Your task to perform on an android device: Clear all items from cart on amazon. Add logitech g910 to the cart on amazon, then select checkout. Image 0: 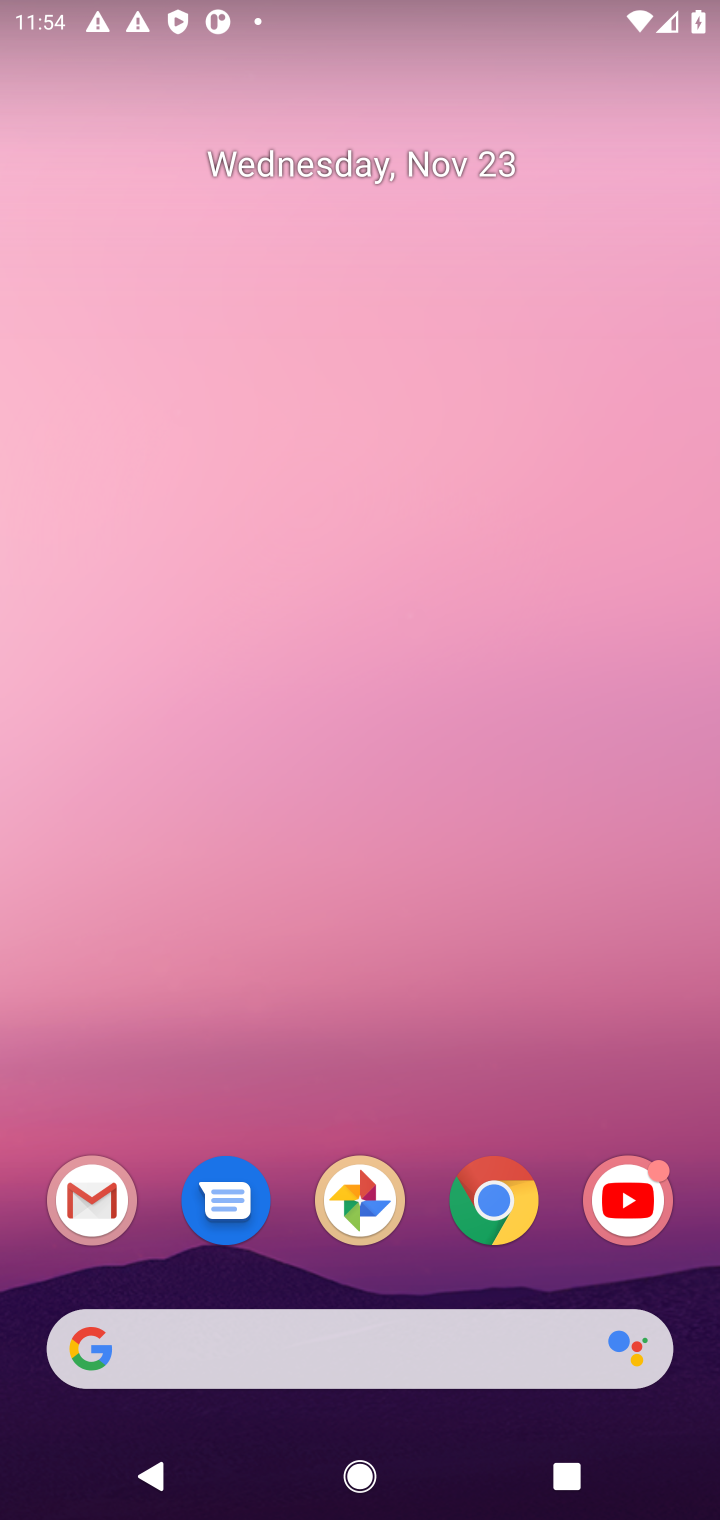
Step 0: click (270, 1362)
Your task to perform on an android device: Clear all items from cart on amazon. Add logitech g910 to the cart on amazon, then select checkout. Image 1: 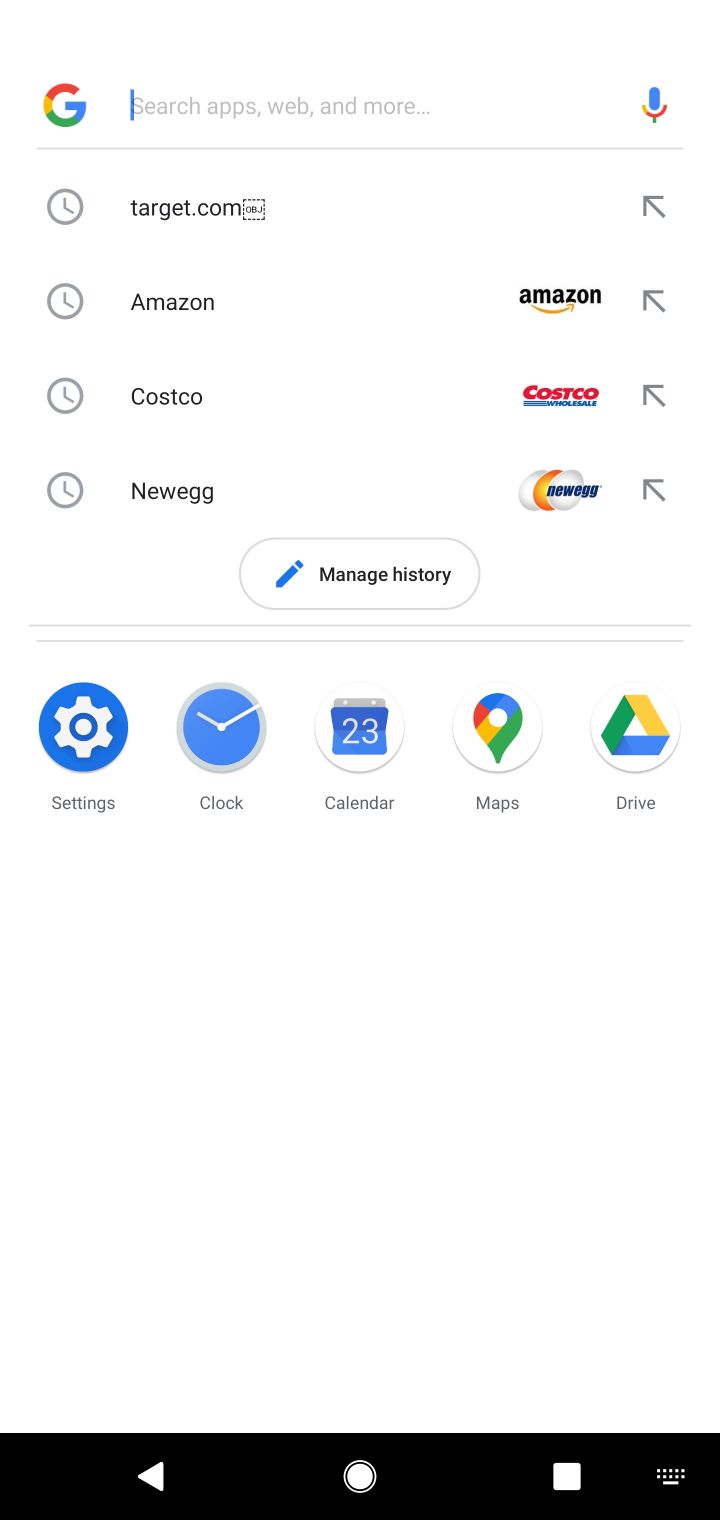
Step 1: click (541, 315)
Your task to perform on an android device: Clear all items from cart on amazon. Add logitech g910 to the cart on amazon, then select checkout. Image 2: 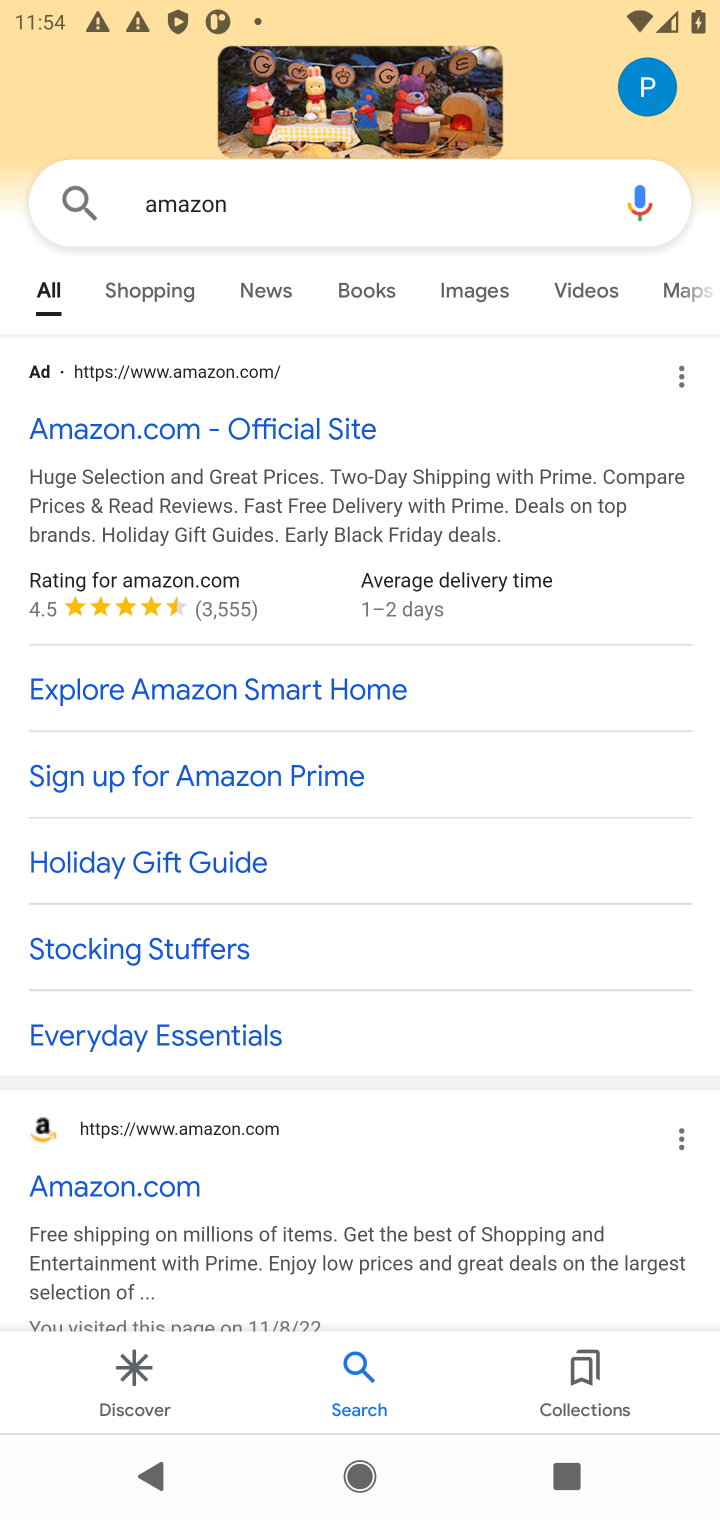
Step 2: click (318, 424)
Your task to perform on an android device: Clear all items from cart on amazon. Add logitech g910 to the cart on amazon, then select checkout. Image 3: 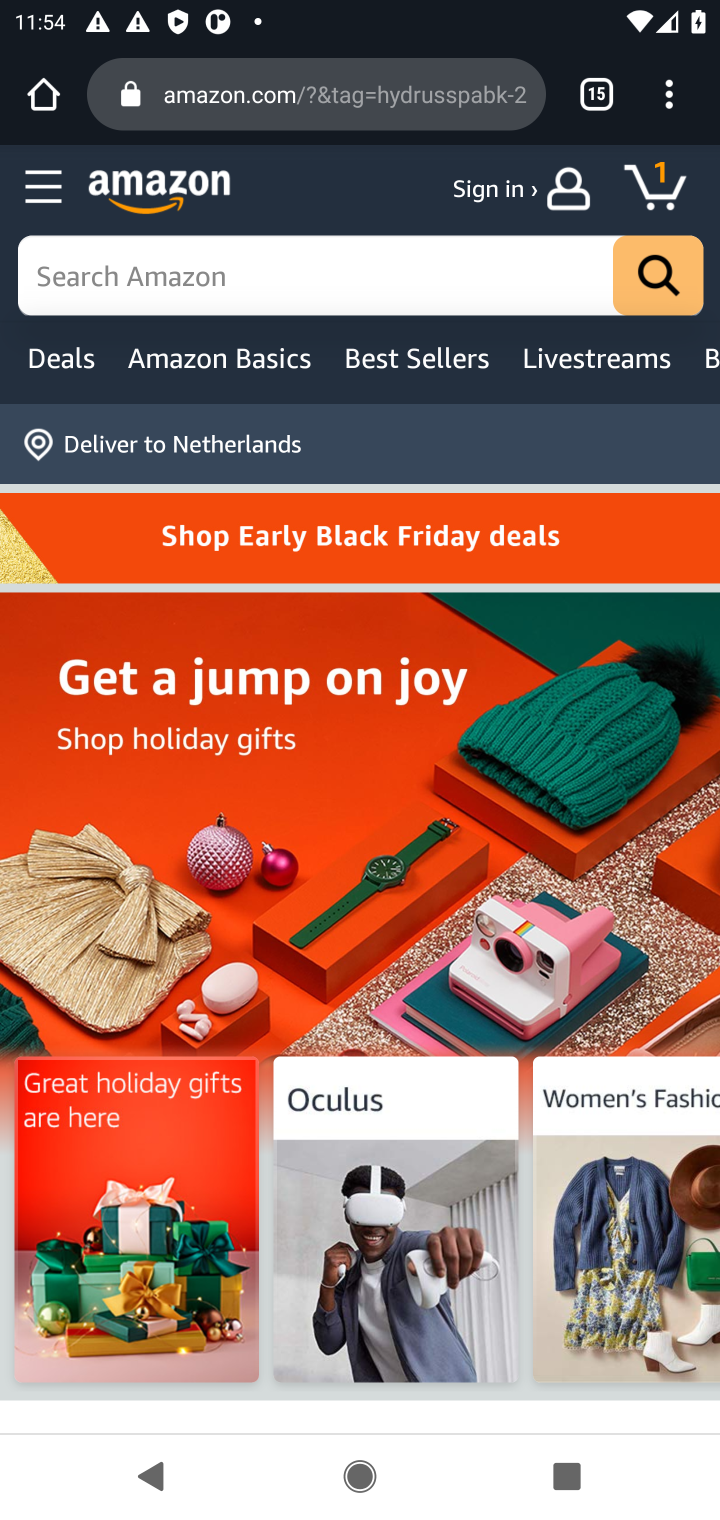
Step 3: click (179, 275)
Your task to perform on an android device: Clear all items from cart on amazon. Add logitech g910 to the cart on amazon, then select checkout. Image 4: 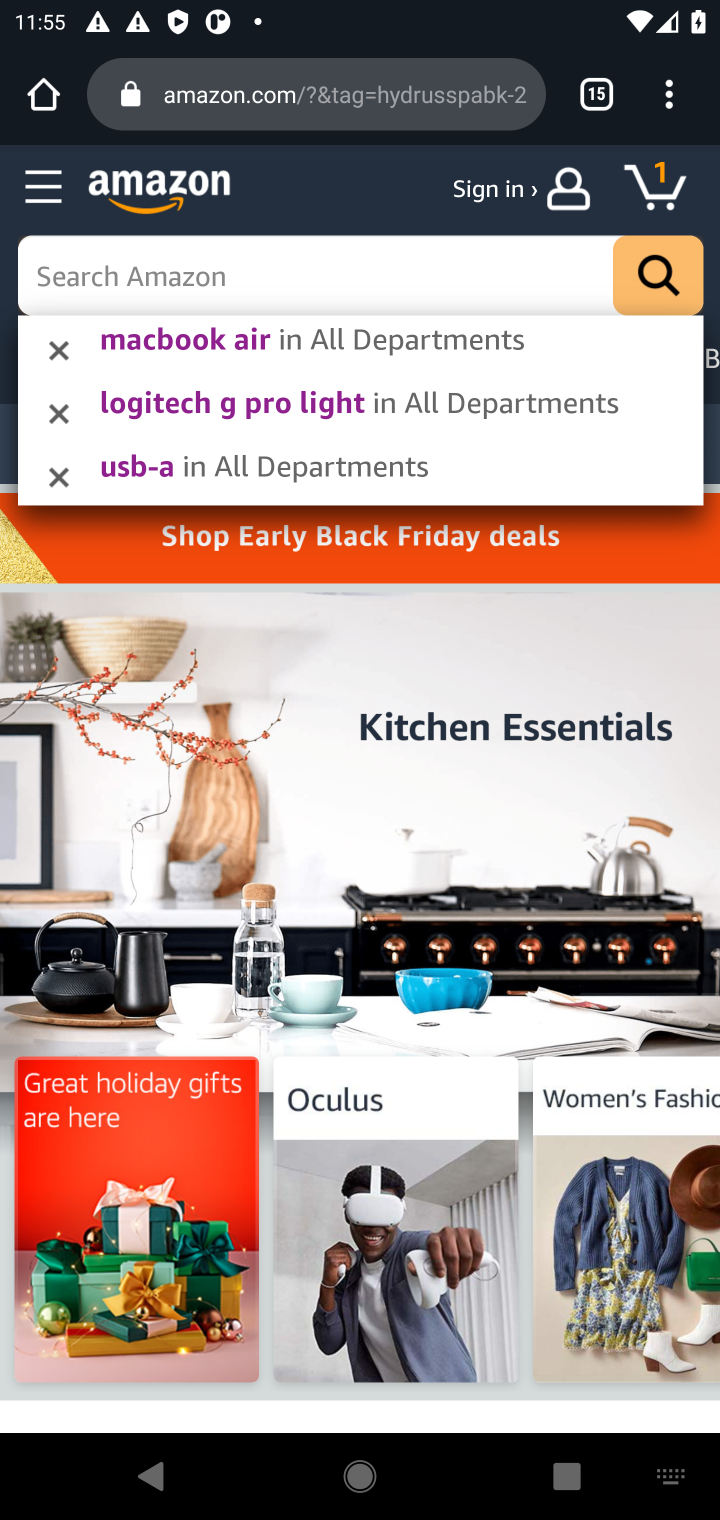
Step 4: type "logitech g910"
Your task to perform on an android device: Clear all items from cart on amazon. Add logitech g910 to the cart on amazon, then select checkout. Image 5: 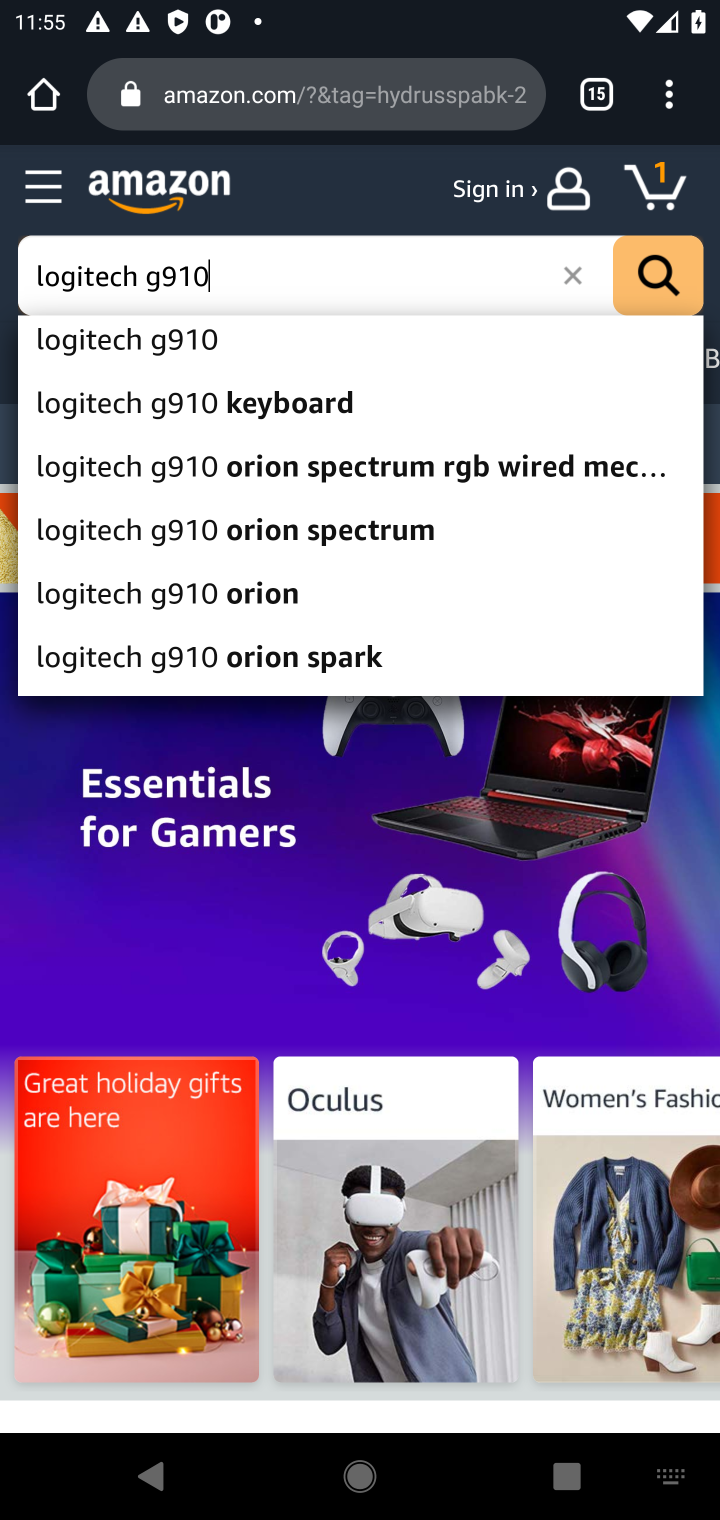
Step 5: click (384, 338)
Your task to perform on an android device: Clear all items from cart on amazon. Add logitech g910 to the cart on amazon, then select checkout. Image 6: 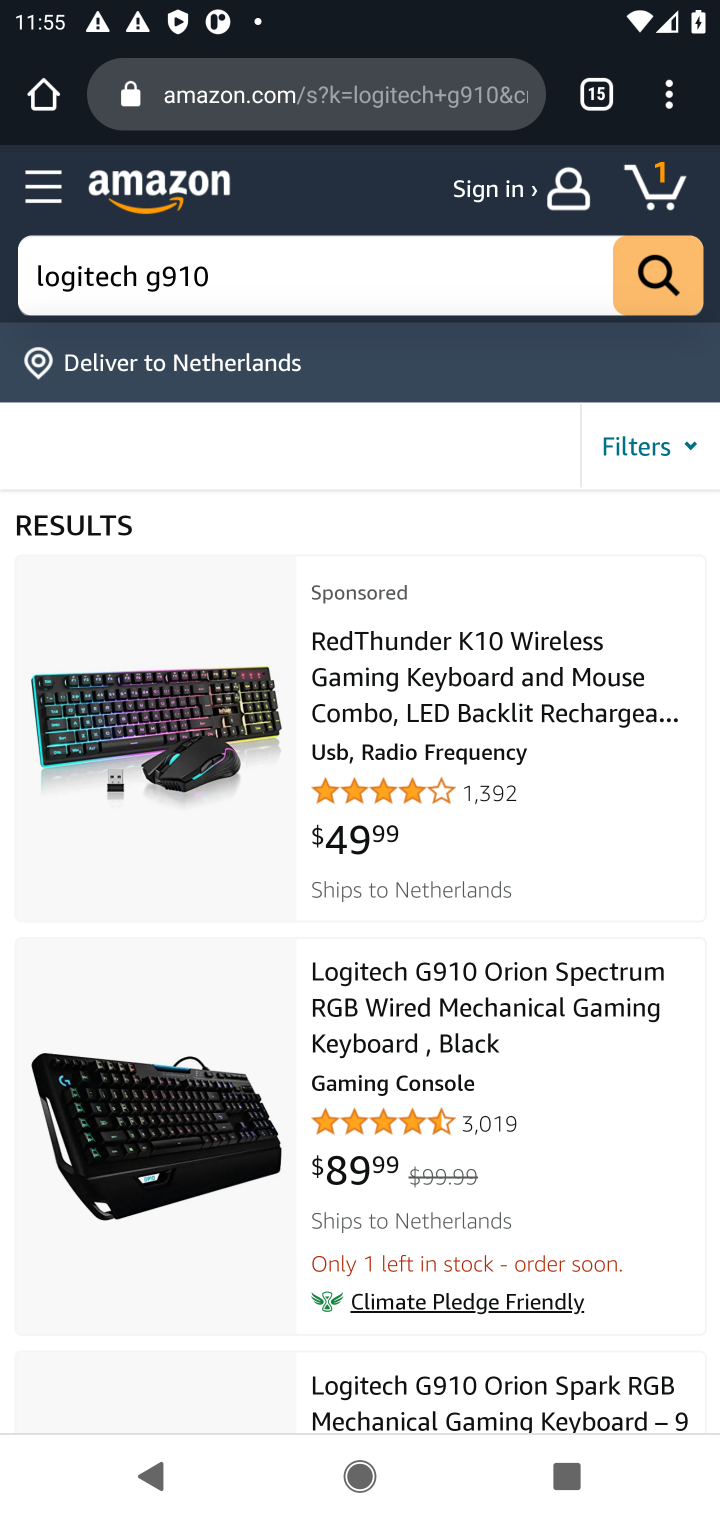
Step 6: click (465, 681)
Your task to perform on an android device: Clear all items from cart on amazon. Add logitech g910 to the cart on amazon, then select checkout. Image 7: 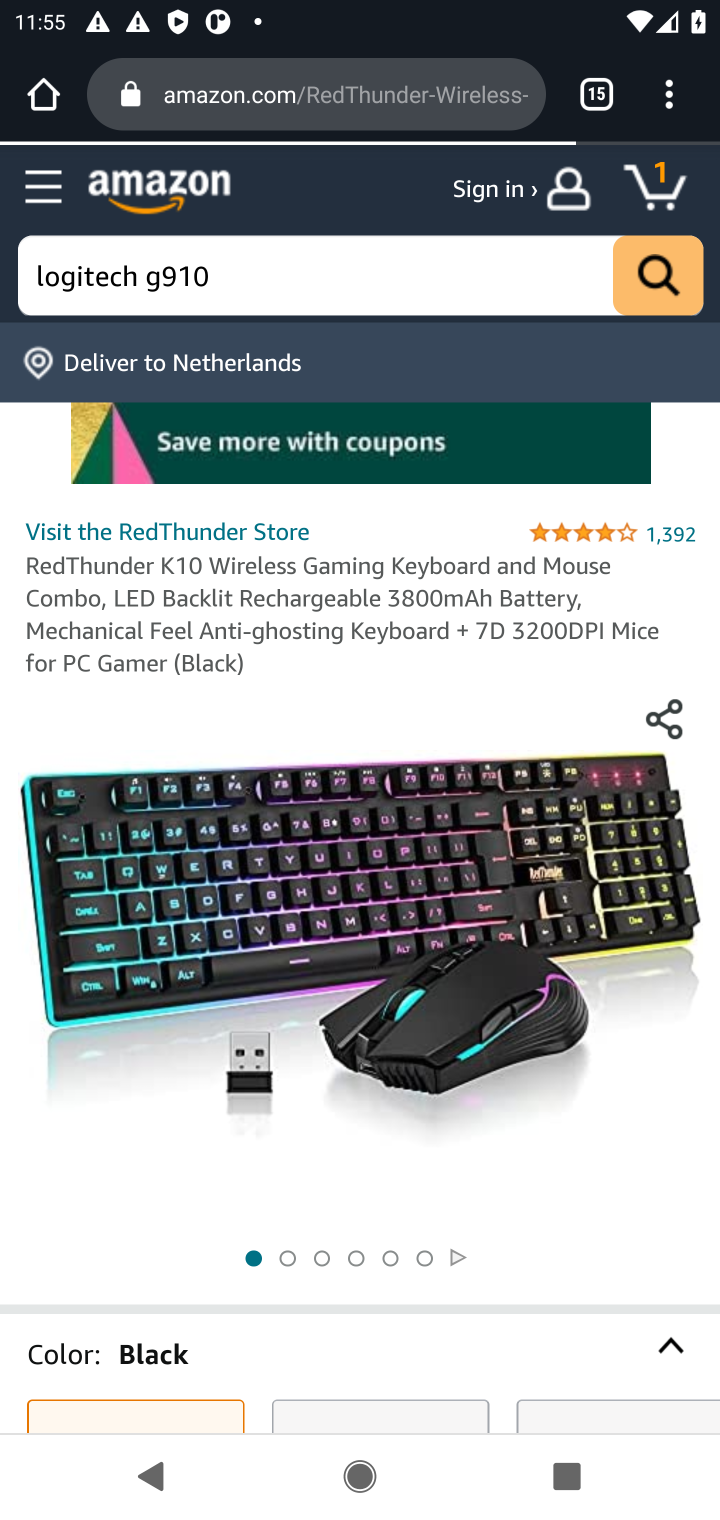
Step 7: drag from (452, 1137) to (313, 307)
Your task to perform on an android device: Clear all items from cart on amazon. Add logitech g910 to the cart on amazon, then select checkout. Image 8: 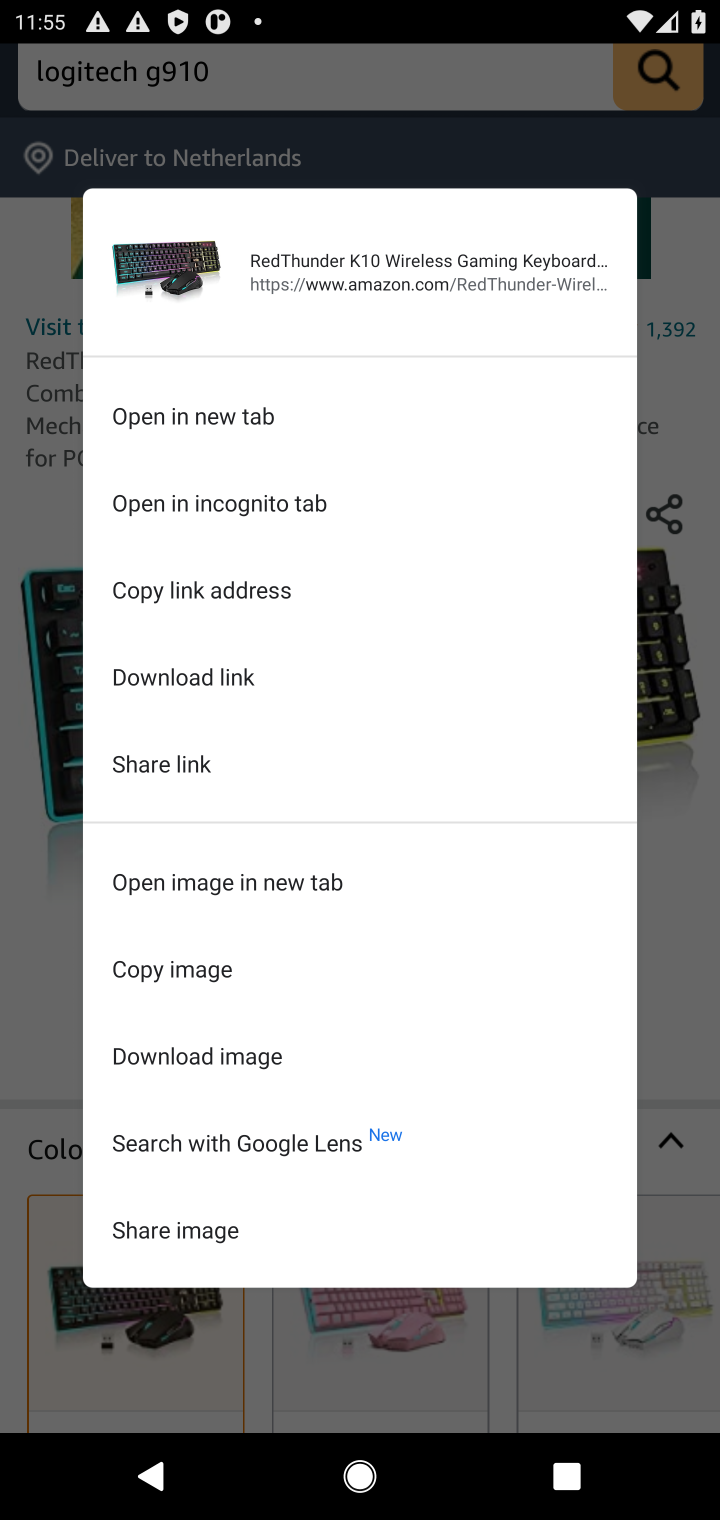
Step 8: click (39, 878)
Your task to perform on an android device: Clear all items from cart on amazon. Add logitech g910 to the cart on amazon, then select checkout. Image 9: 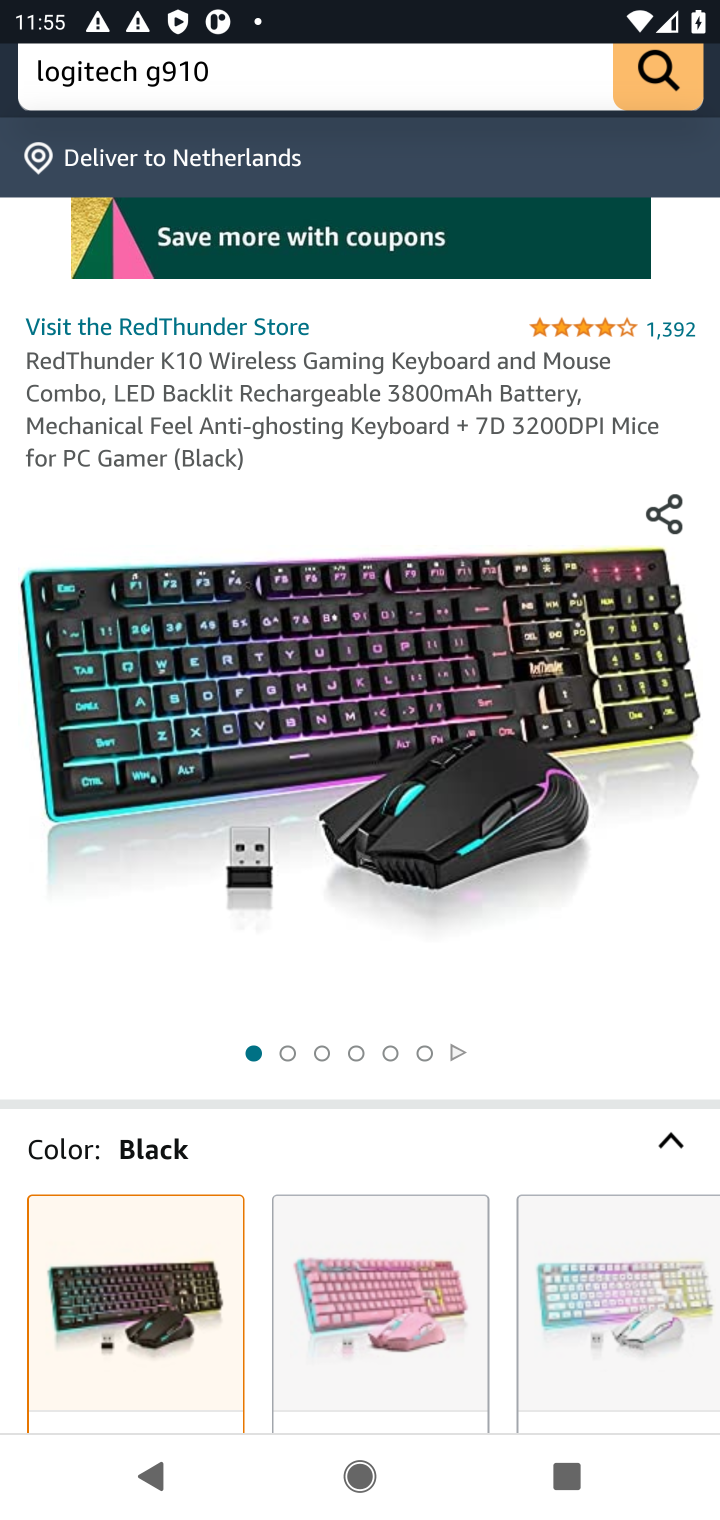
Step 9: drag from (305, 1163) to (357, 11)
Your task to perform on an android device: Clear all items from cart on amazon. Add logitech g910 to the cart on amazon, then select checkout. Image 10: 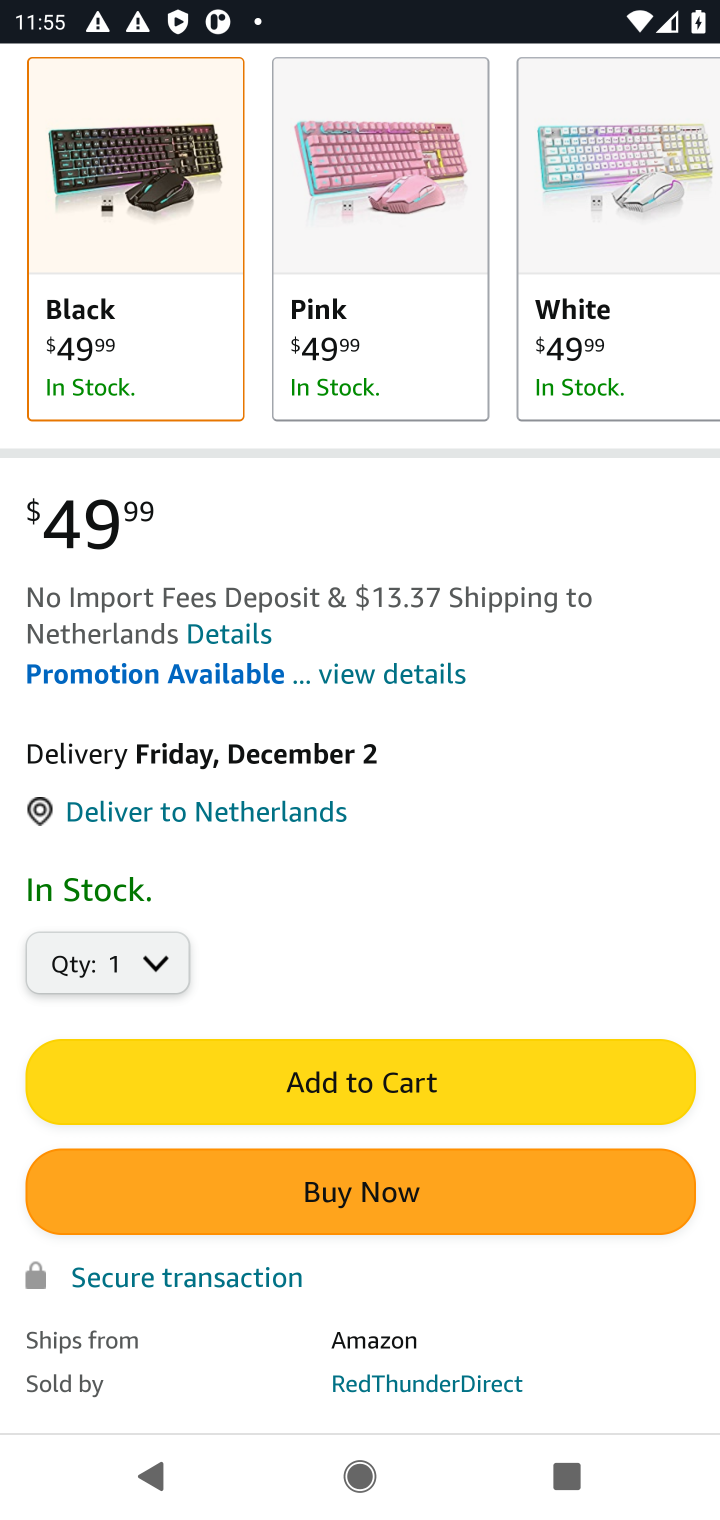
Step 10: click (392, 1084)
Your task to perform on an android device: Clear all items from cart on amazon. Add logitech g910 to the cart on amazon, then select checkout. Image 11: 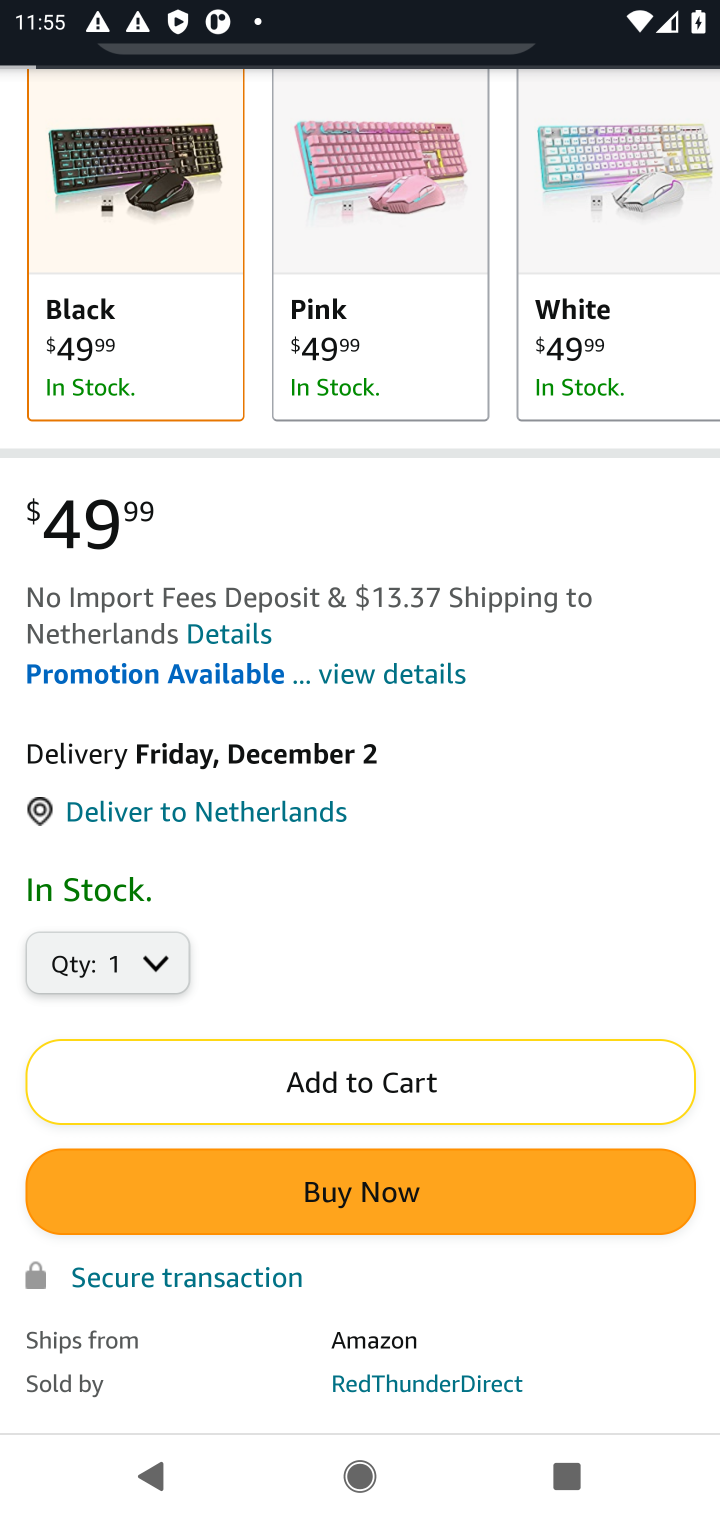
Step 11: task complete